Your task to perform on an android device: show emergency info Image 0: 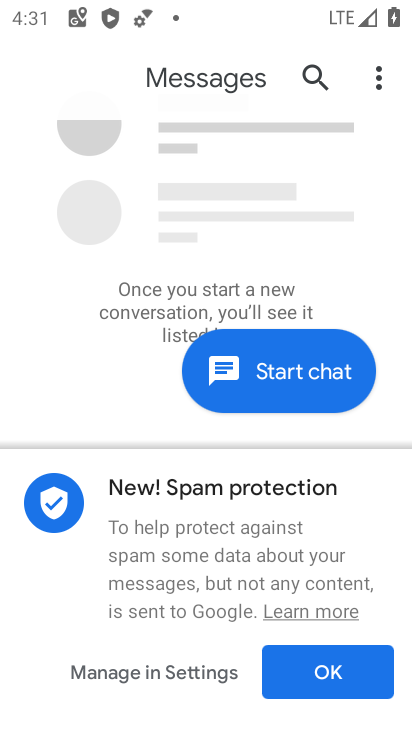
Step 0: press home button
Your task to perform on an android device: show emergency info Image 1: 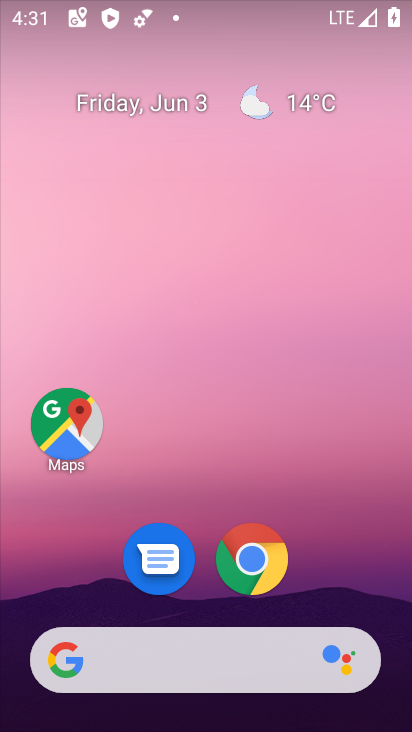
Step 1: click (359, 137)
Your task to perform on an android device: show emergency info Image 2: 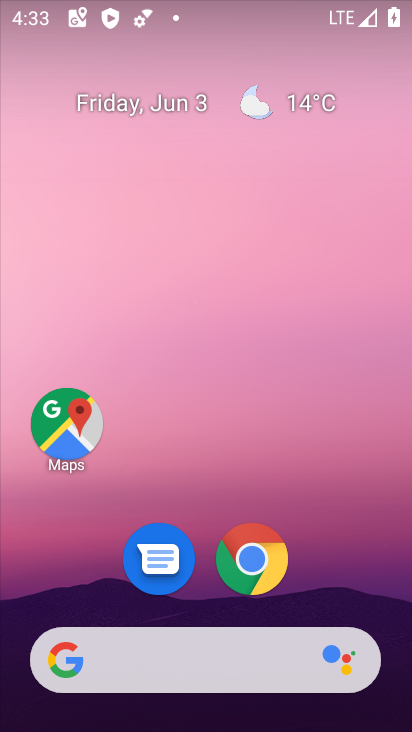
Step 2: drag from (334, 555) to (345, 156)
Your task to perform on an android device: show emergency info Image 3: 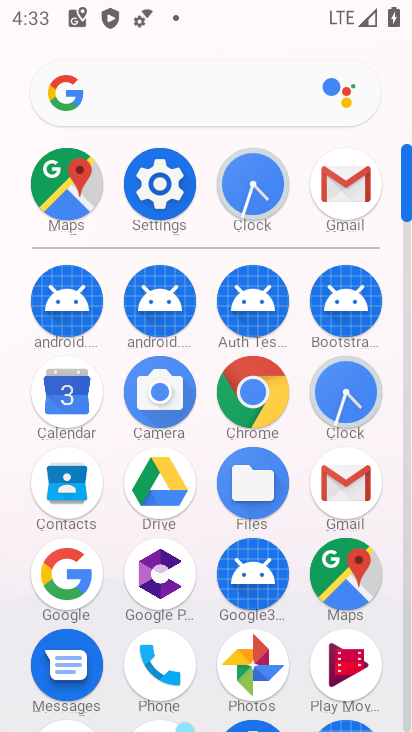
Step 3: click (163, 188)
Your task to perform on an android device: show emergency info Image 4: 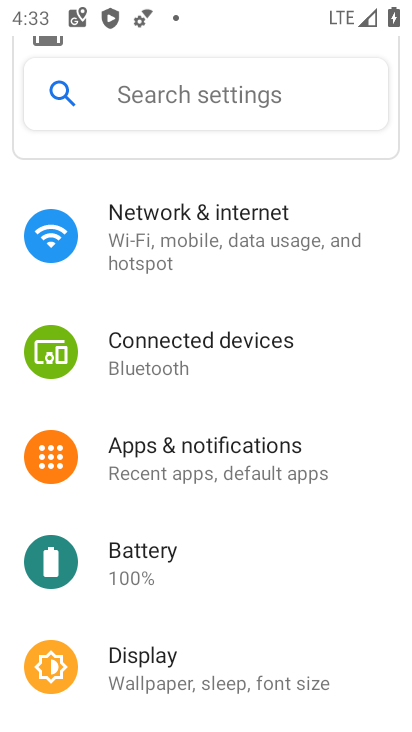
Step 4: drag from (258, 644) to (260, 302)
Your task to perform on an android device: show emergency info Image 5: 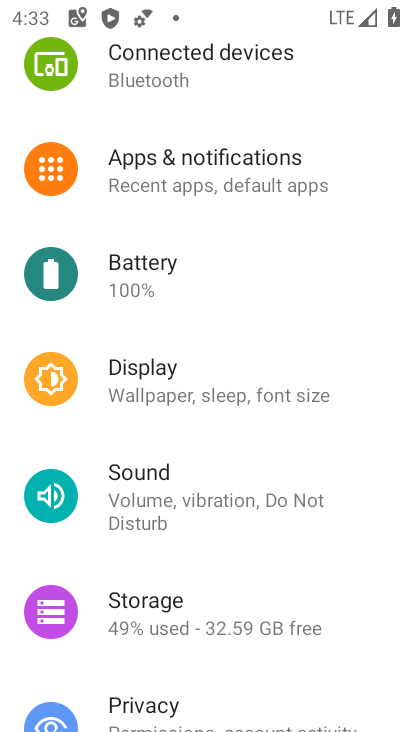
Step 5: drag from (225, 695) to (256, 283)
Your task to perform on an android device: show emergency info Image 6: 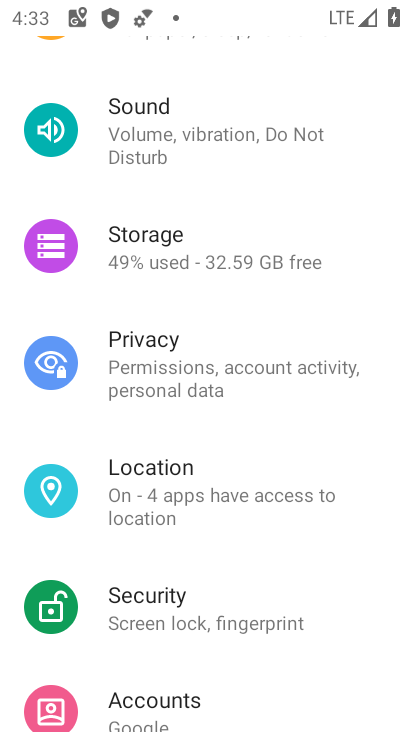
Step 6: drag from (241, 692) to (255, 336)
Your task to perform on an android device: show emergency info Image 7: 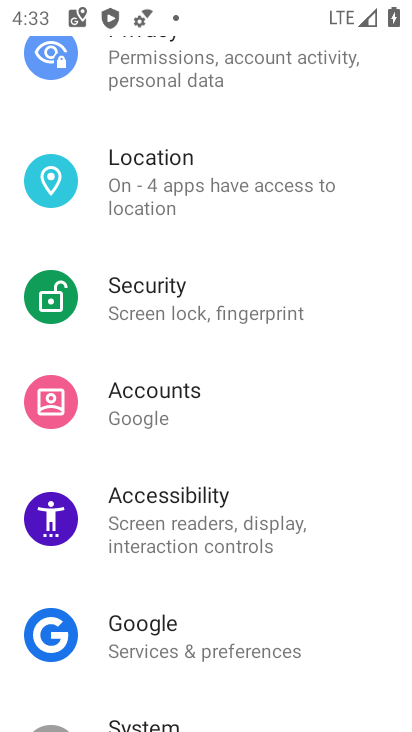
Step 7: drag from (269, 643) to (271, 297)
Your task to perform on an android device: show emergency info Image 8: 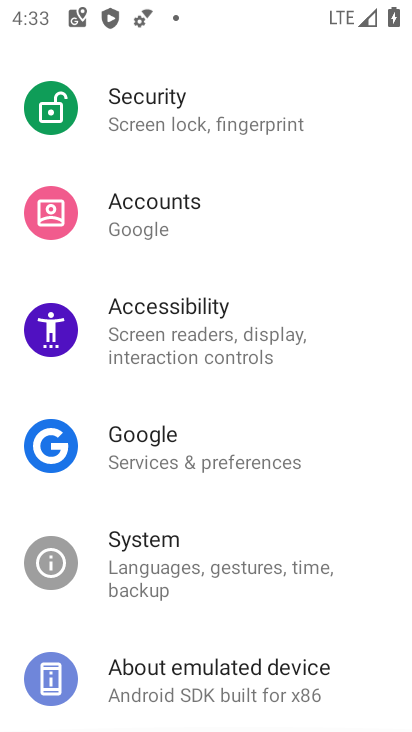
Step 8: drag from (229, 636) to (260, 332)
Your task to perform on an android device: show emergency info Image 9: 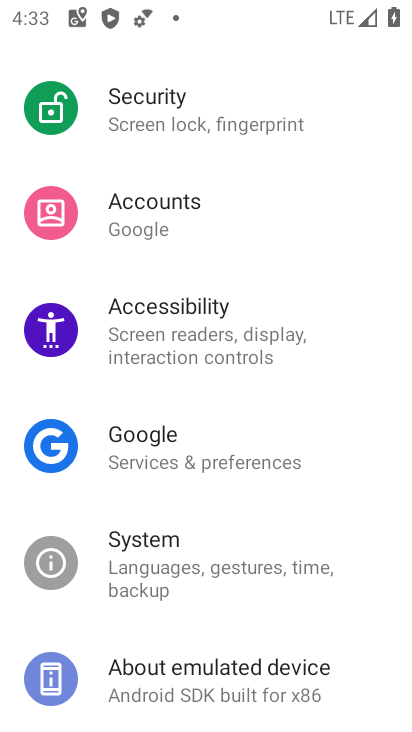
Step 9: click (184, 678)
Your task to perform on an android device: show emergency info Image 10: 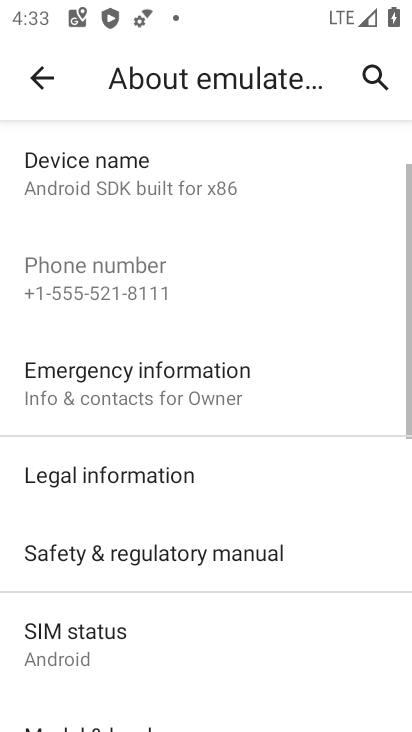
Step 10: drag from (181, 656) to (198, 491)
Your task to perform on an android device: show emergency info Image 11: 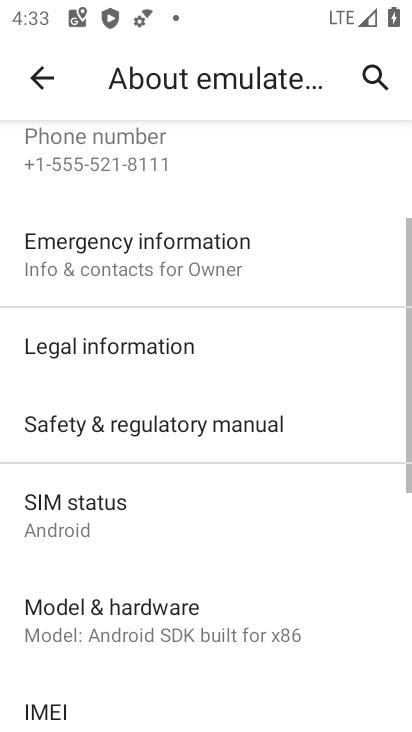
Step 11: click (152, 249)
Your task to perform on an android device: show emergency info Image 12: 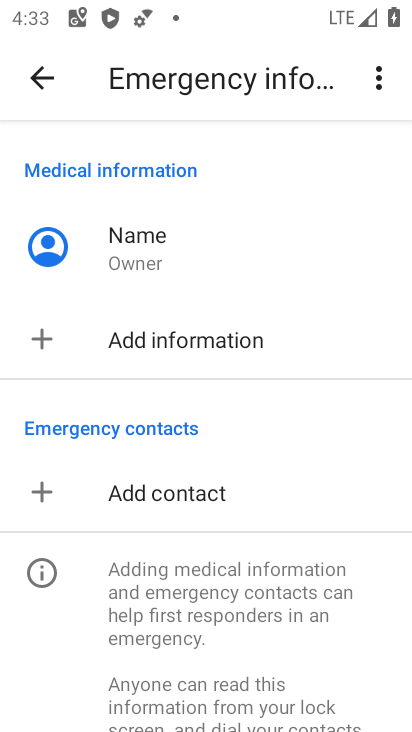
Step 12: task complete